Your task to perform on an android device: uninstall "Walmart Shopping & Grocery" Image 0: 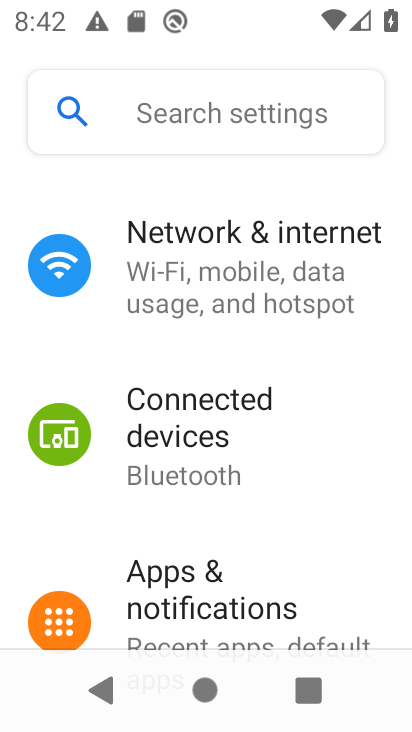
Step 0: drag from (399, 589) to (306, 161)
Your task to perform on an android device: uninstall "Walmart Shopping & Grocery" Image 1: 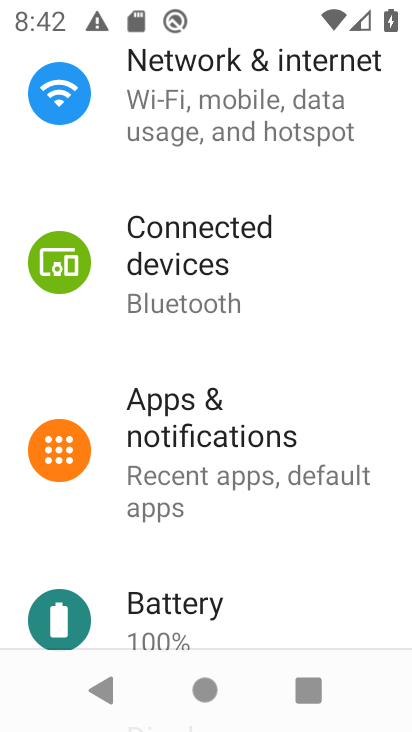
Step 1: press home button
Your task to perform on an android device: uninstall "Walmart Shopping & Grocery" Image 2: 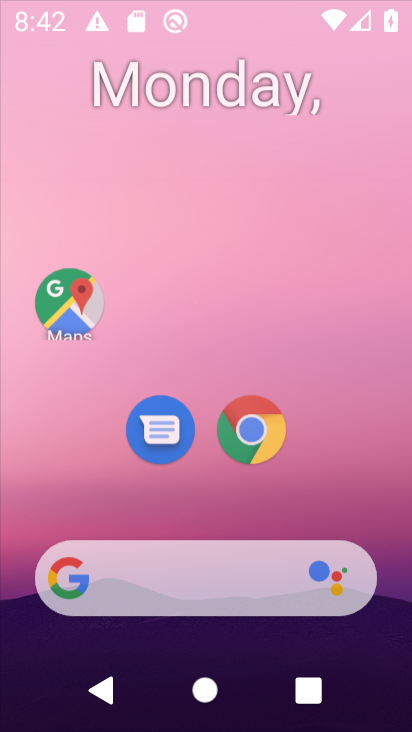
Step 2: drag from (391, 683) to (186, 45)
Your task to perform on an android device: uninstall "Walmart Shopping & Grocery" Image 3: 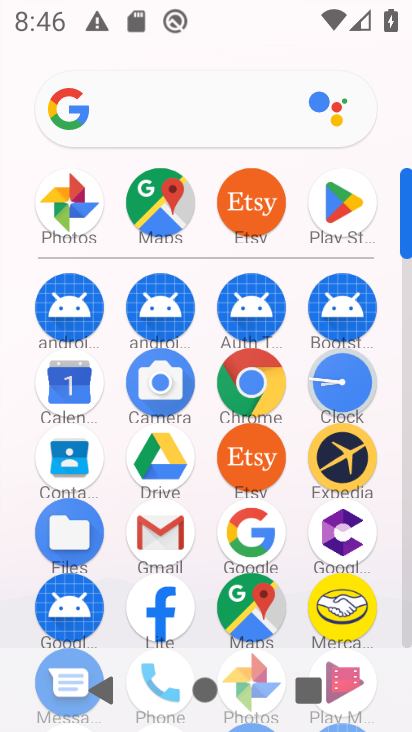
Step 3: click (333, 224)
Your task to perform on an android device: uninstall "Walmart Shopping & Grocery" Image 4: 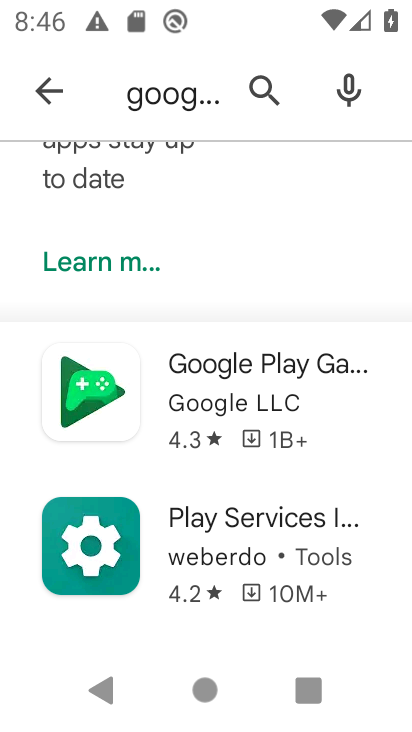
Step 4: press back button
Your task to perform on an android device: uninstall "Walmart Shopping & Grocery" Image 5: 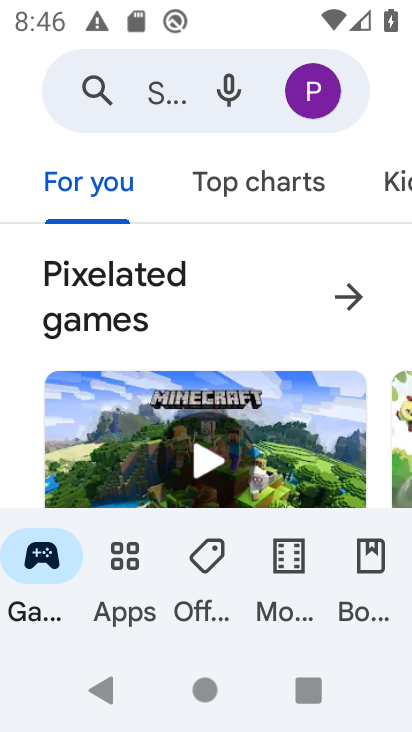
Step 5: click (151, 92)
Your task to perform on an android device: uninstall "Walmart Shopping & Grocery" Image 6: 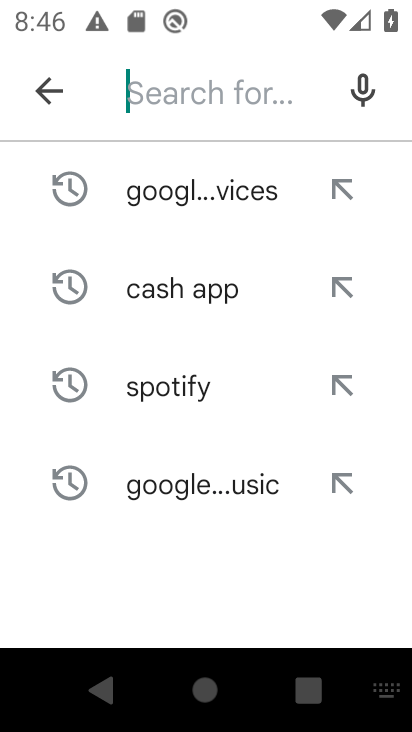
Step 6: type "Walmart Shopping & Grocery"
Your task to perform on an android device: uninstall "Walmart Shopping & Grocery" Image 7: 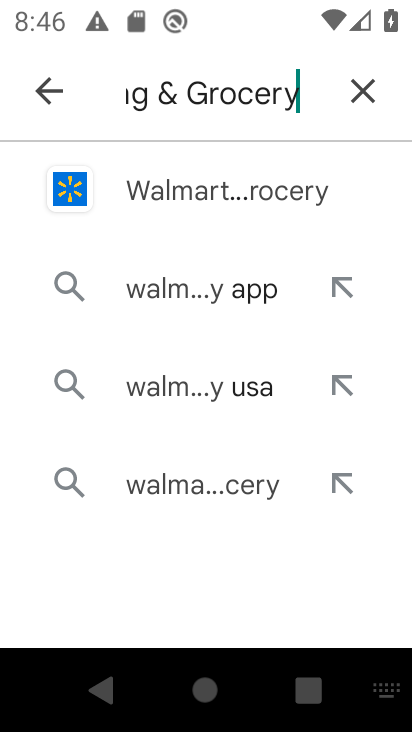
Step 7: click (201, 195)
Your task to perform on an android device: uninstall "Walmart Shopping & Grocery" Image 8: 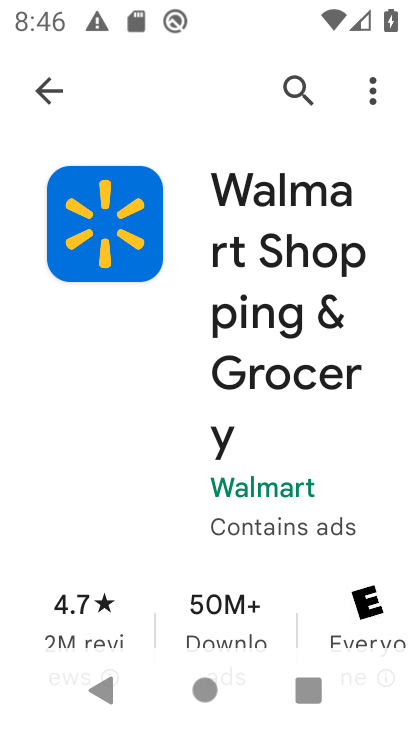
Step 8: task complete